Your task to perform on an android device: Open sound settings Image 0: 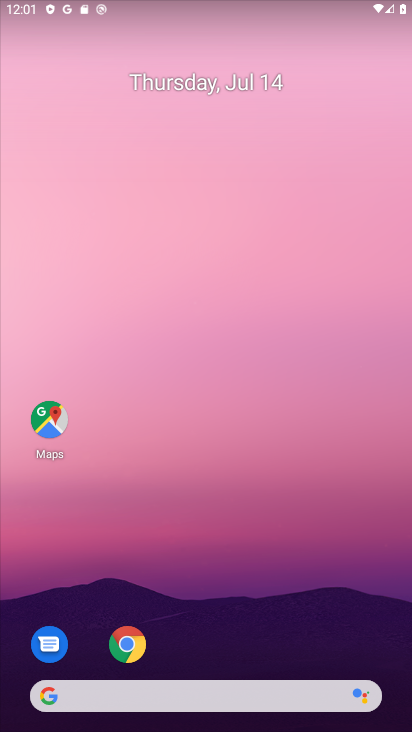
Step 0: click (221, 127)
Your task to perform on an android device: Open sound settings Image 1: 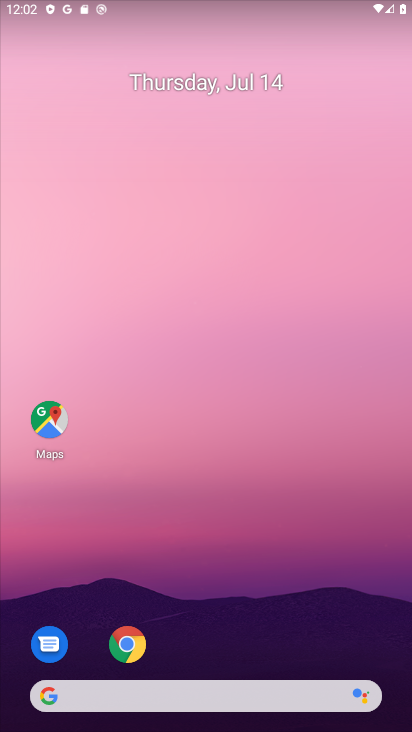
Step 1: drag from (222, 490) to (123, 22)
Your task to perform on an android device: Open sound settings Image 2: 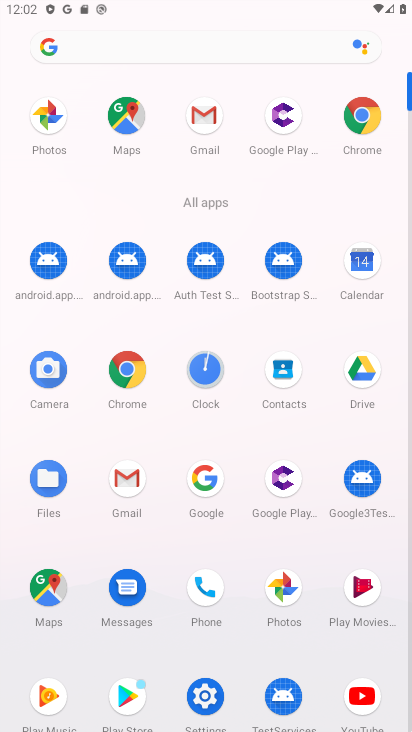
Step 2: click (204, 704)
Your task to perform on an android device: Open sound settings Image 3: 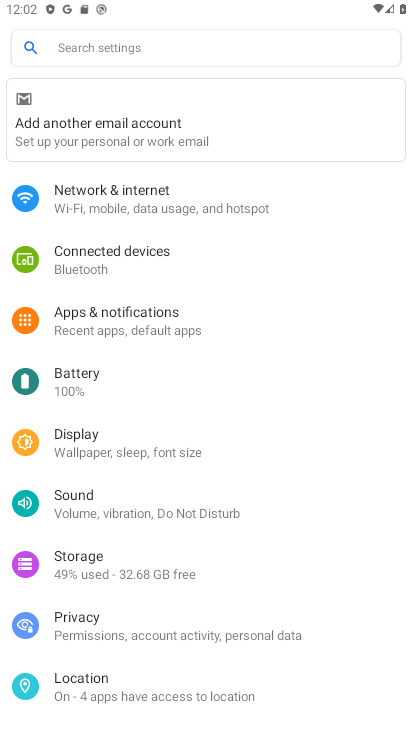
Step 3: click (103, 515)
Your task to perform on an android device: Open sound settings Image 4: 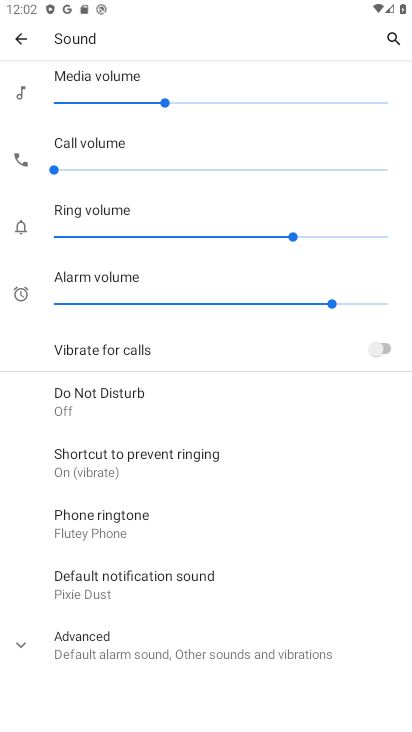
Step 4: task complete